Your task to perform on an android device: find snoozed emails in the gmail app Image 0: 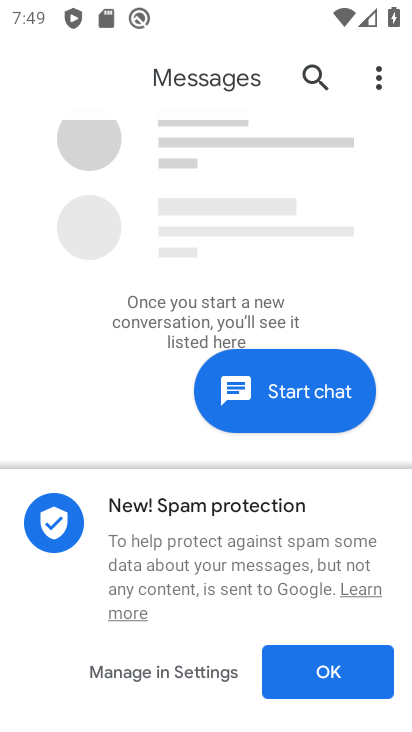
Step 0: press back button
Your task to perform on an android device: find snoozed emails in the gmail app Image 1: 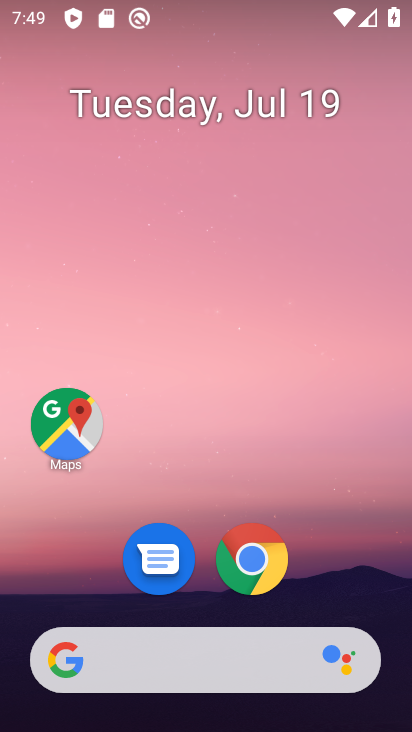
Step 1: drag from (103, 558) to (290, 28)
Your task to perform on an android device: find snoozed emails in the gmail app Image 2: 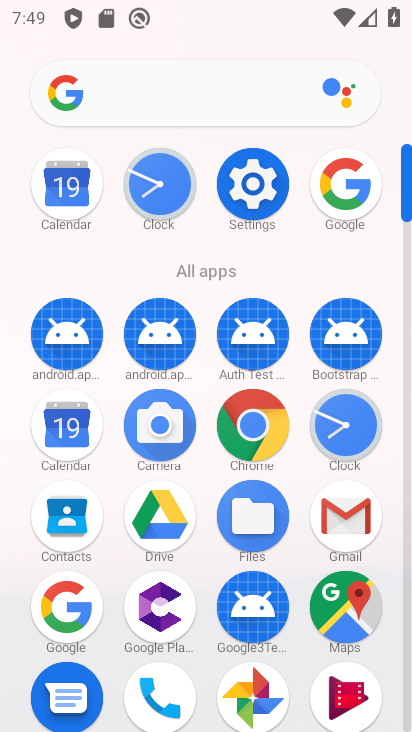
Step 2: click (335, 526)
Your task to perform on an android device: find snoozed emails in the gmail app Image 3: 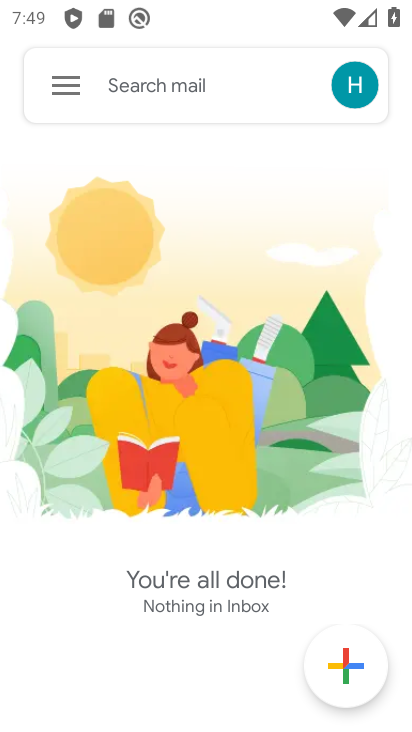
Step 3: click (60, 82)
Your task to perform on an android device: find snoozed emails in the gmail app Image 4: 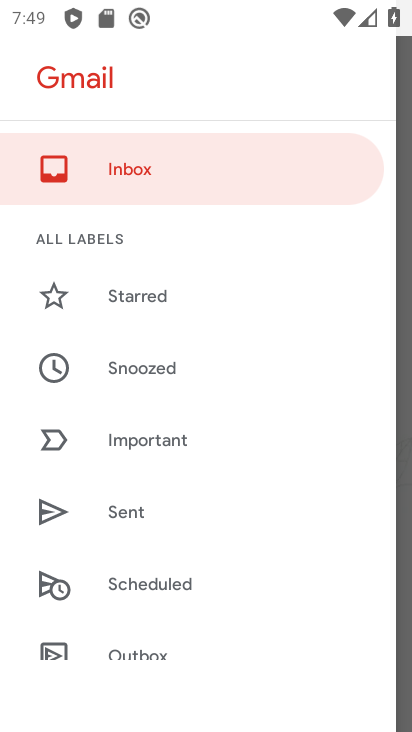
Step 4: click (108, 368)
Your task to perform on an android device: find snoozed emails in the gmail app Image 5: 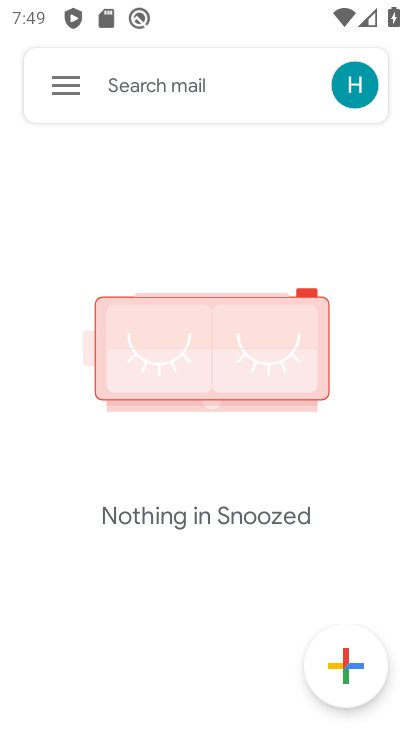
Step 5: task complete